Your task to perform on an android device: Do I have any events tomorrow? Image 0: 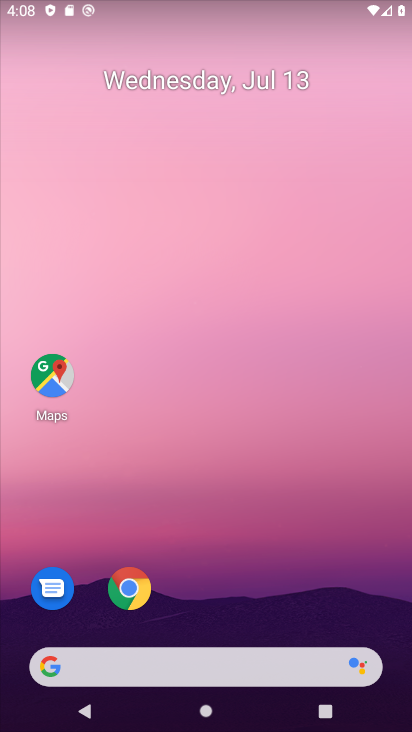
Step 0: drag from (37, 680) to (160, 9)
Your task to perform on an android device: Do I have any events tomorrow? Image 1: 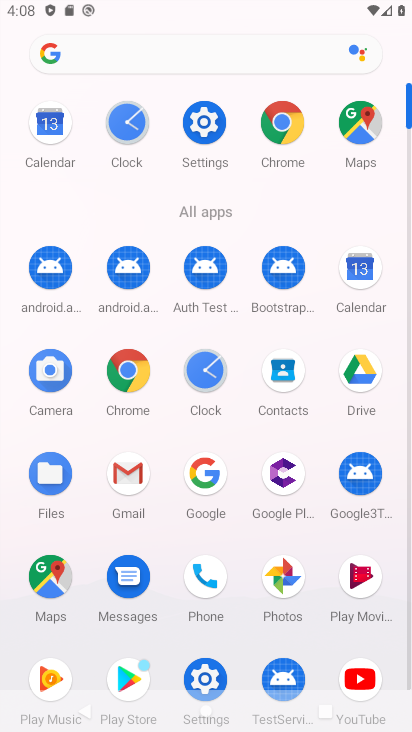
Step 1: click (346, 275)
Your task to perform on an android device: Do I have any events tomorrow? Image 2: 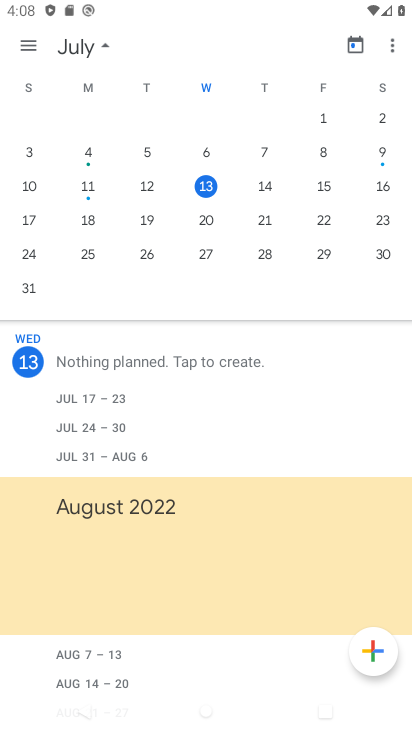
Step 2: task complete